Your task to perform on an android device: Go to settings Image 0: 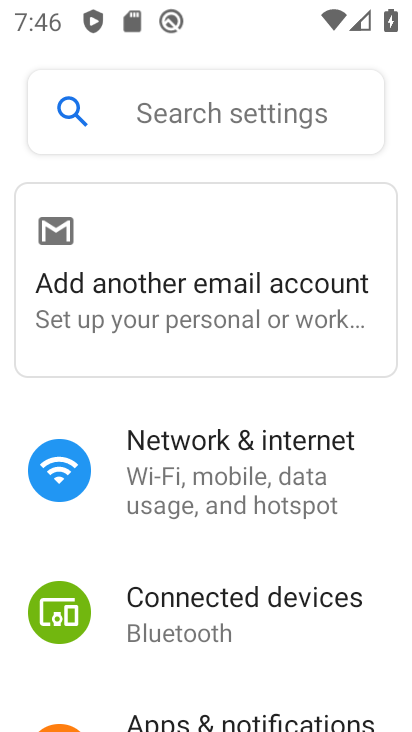
Step 0: drag from (206, 621) to (307, 122)
Your task to perform on an android device: Go to settings Image 1: 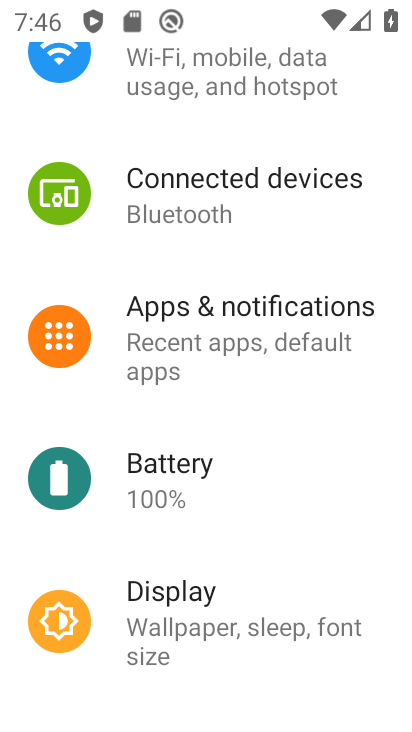
Step 1: task complete